Your task to perform on an android device: turn on bluetooth scan Image 0: 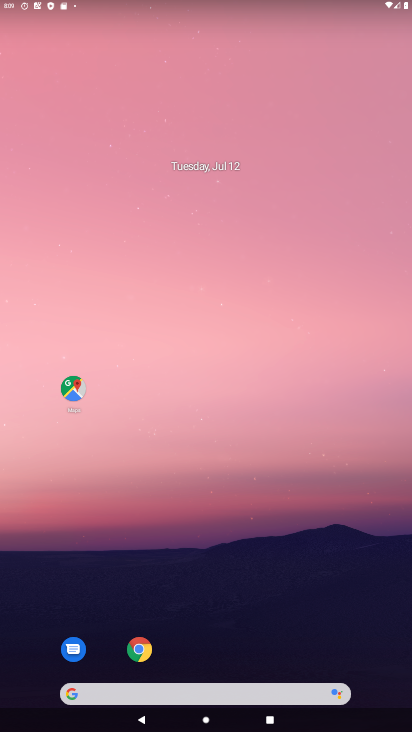
Step 0: drag from (300, 521) to (355, 109)
Your task to perform on an android device: turn on bluetooth scan Image 1: 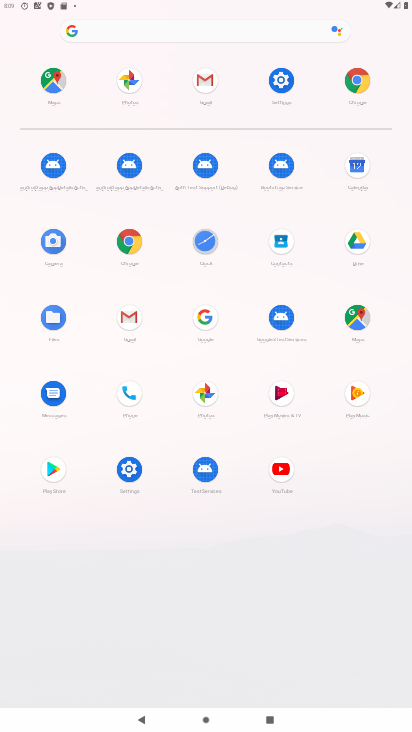
Step 1: click (276, 79)
Your task to perform on an android device: turn on bluetooth scan Image 2: 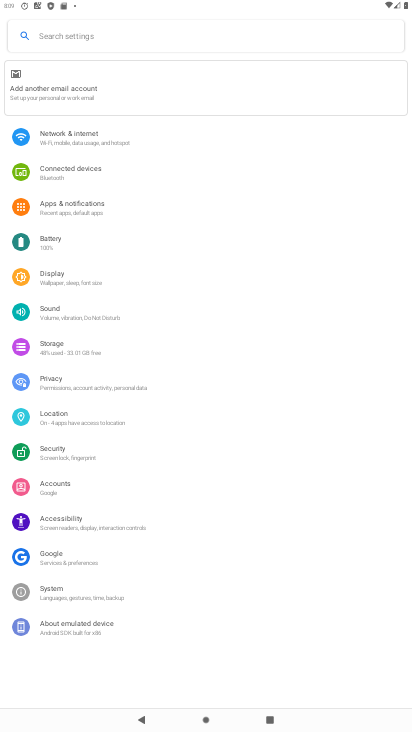
Step 2: click (86, 424)
Your task to perform on an android device: turn on bluetooth scan Image 3: 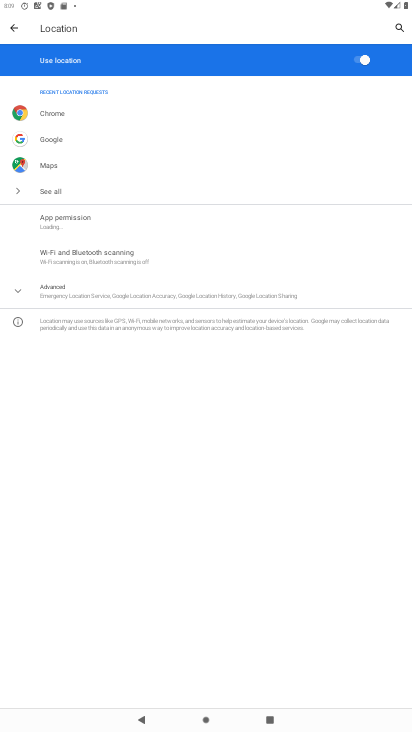
Step 3: click (119, 263)
Your task to perform on an android device: turn on bluetooth scan Image 4: 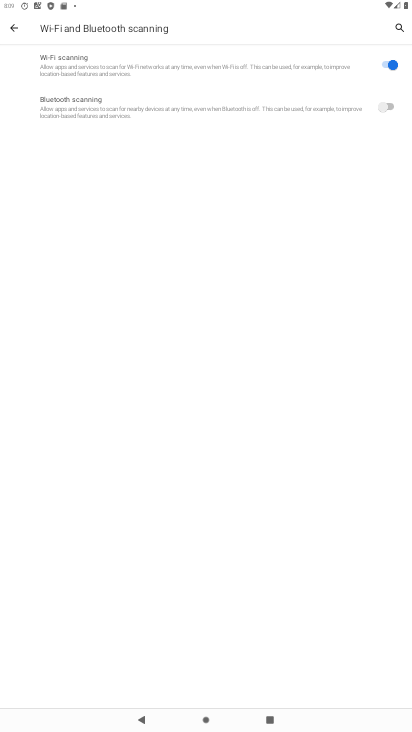
Step 4: click (400, 104)
Your task to perform on an android device: turn on bluetooth scan Image 5: 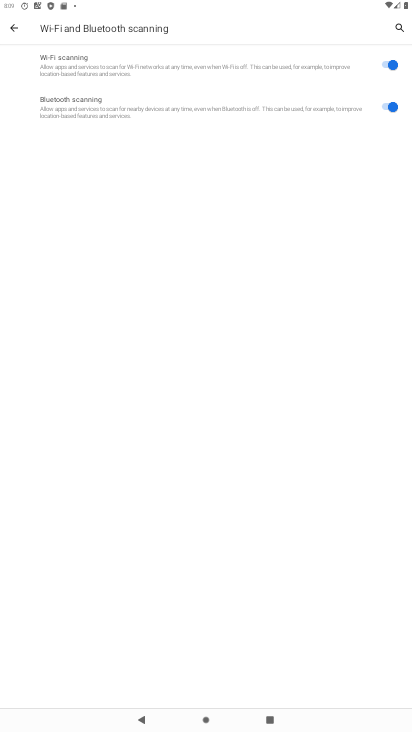
Step 5: task complete